Your task to perform on an android device: open chrome privacy settings Image 0: 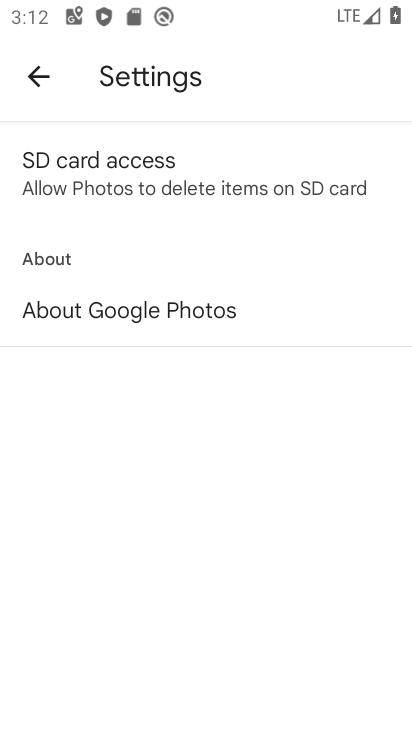
Step 0: press home button
Your task to perform on an android device: open chrome privacy settings Image 1: 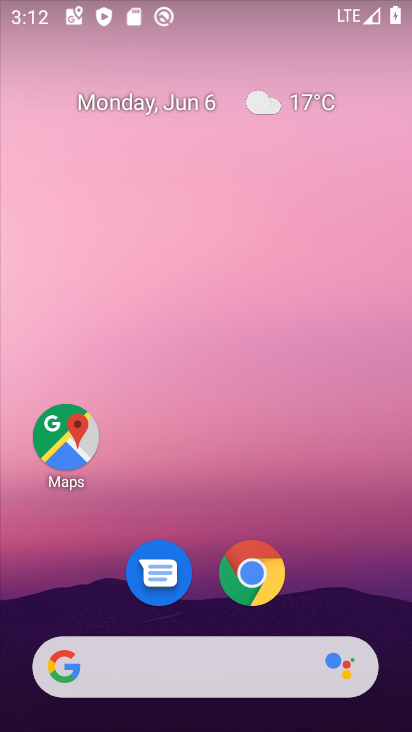
Step 1: drag from (374, 605) to (367, 249)
Your task to perform on an android device: open chrome privacy settings Image 2: 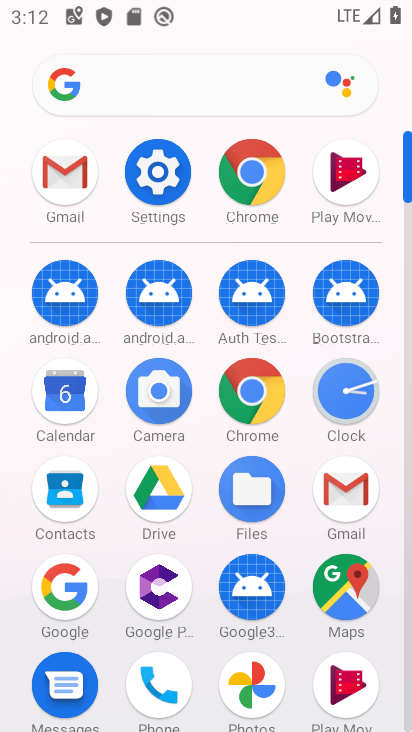
Step 2: click (251, 195)
Your task to perform on an android device: open chrome privacy settings Image 3: 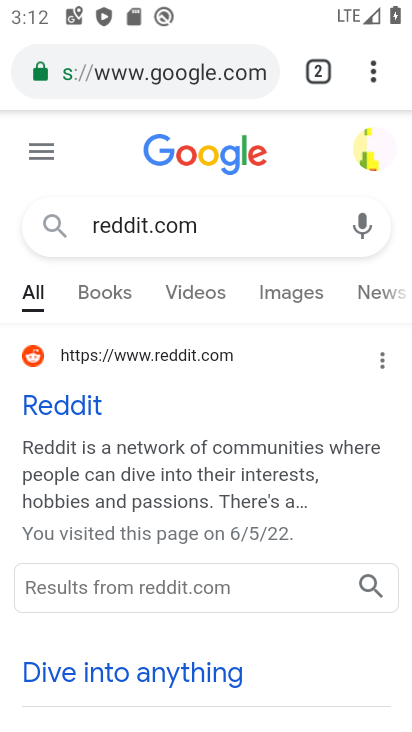
Step 3: click (379, 82)
Your task to perform on an android device: open chrome privacy settings Image 4: 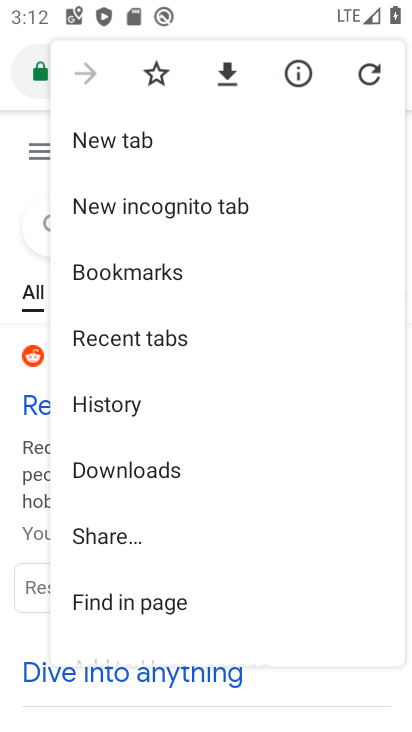
Step 4: drag from (328, 510) to (333, 394)
Your task to perform on an android device: open chrome privacy settings Image 5: 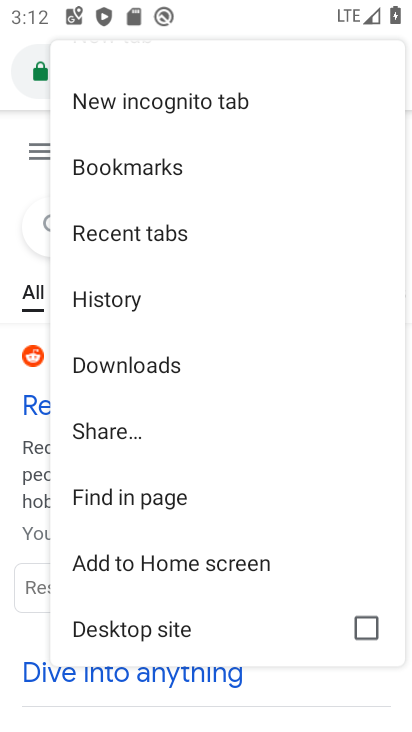
Step 5: drag from (313, 543) to (313, 452)
Your task to perform on an android device: open chrome privacy settings Image 6: 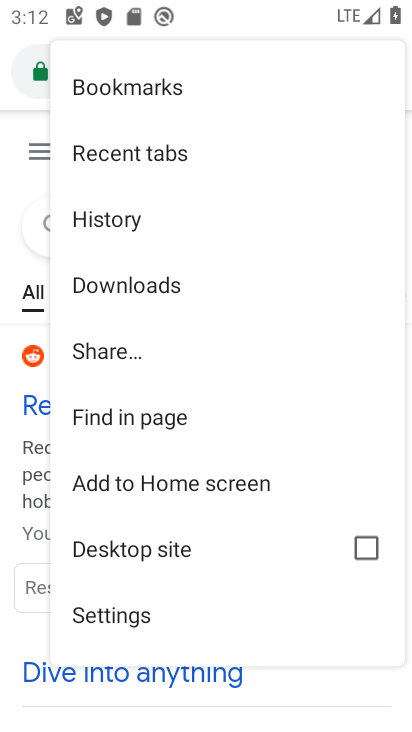
Step 6: drag from (282, 563) to (294, 451)
Your task to perform on an android device: open chrome privacy settings Image 7: 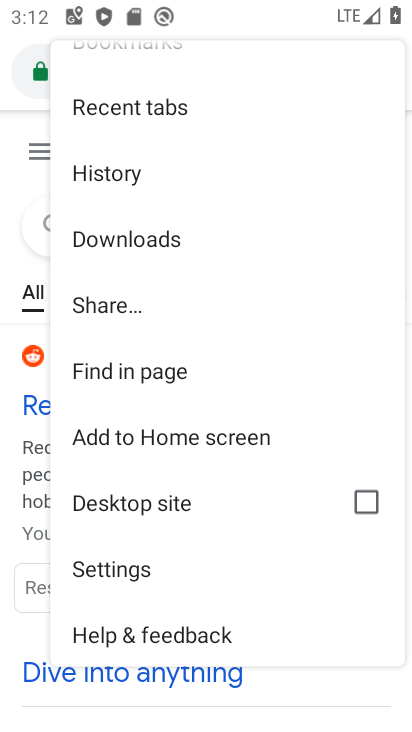
Step 7: click (139, 592)
Your task to perform on an android device: open chrome privacy settings Image 8: 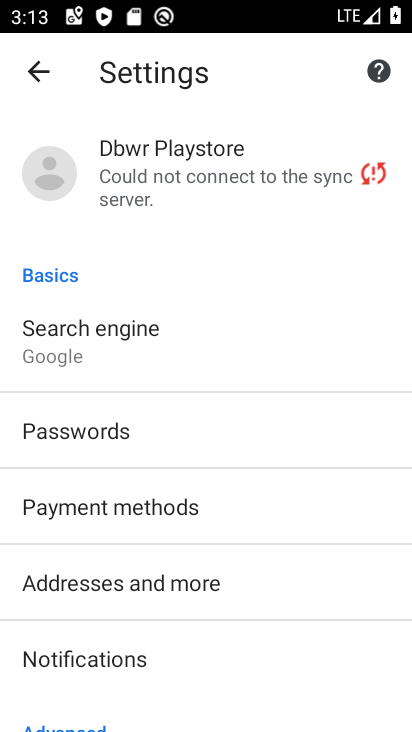
Step 8: drag from (314, 558) to (320, 450)
Your task to perform on an android device: open chrome privacy settings Image 9: 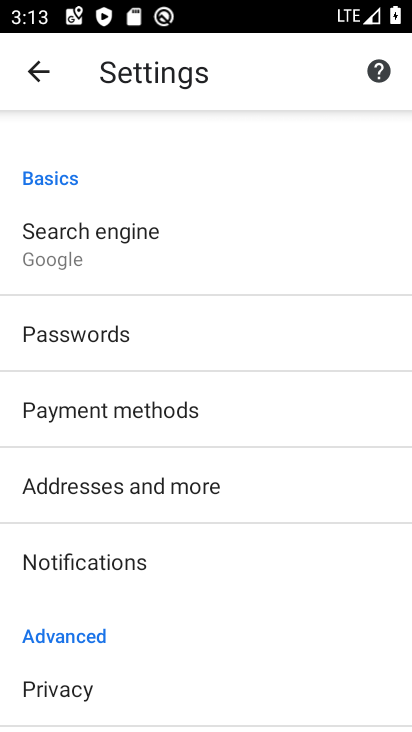
Step 9: drag from (325, 546) to (322, 444)
Your task to perform on an android device: open chrome privacy settings Image 10: 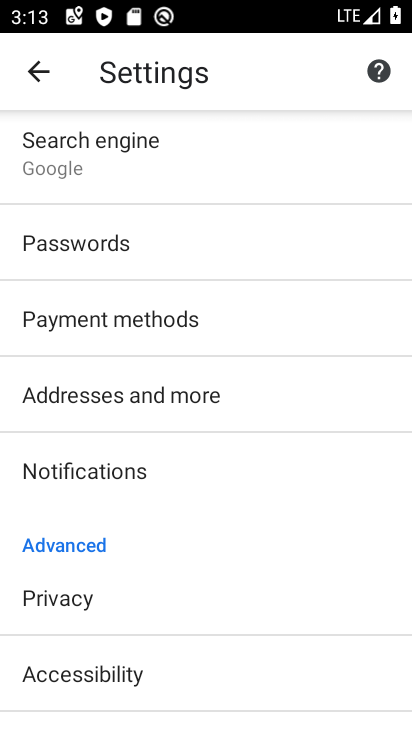
Step 10: drag from (316, 591) to (314, 478)
Your task to perform on an android device: open chrome privacy settings Image 11: 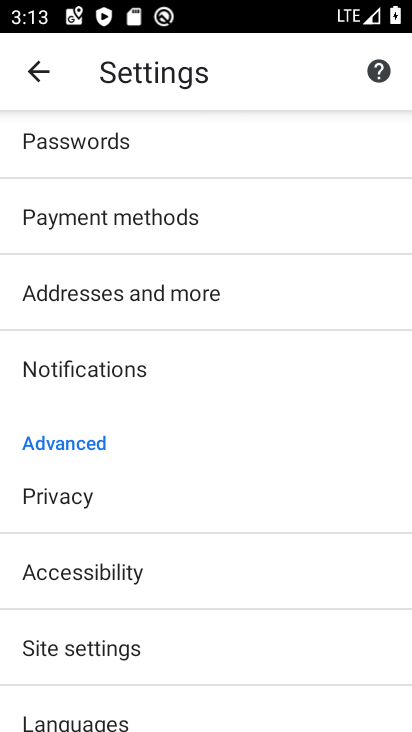
Step 11: drag from (302, 588) to (303, 480)
Your task to perform on an android device: open chrome privacy settings Image 12: 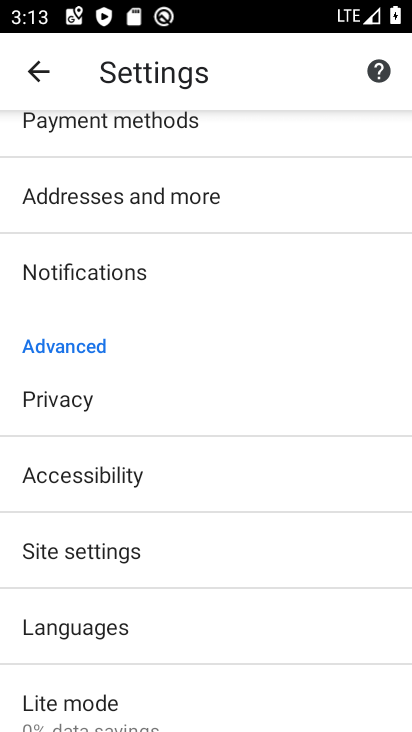
Step 12: drag from (295, 590) to (299, 493)
Your task to perform on an android device: open chrome privacy settings Image 13: 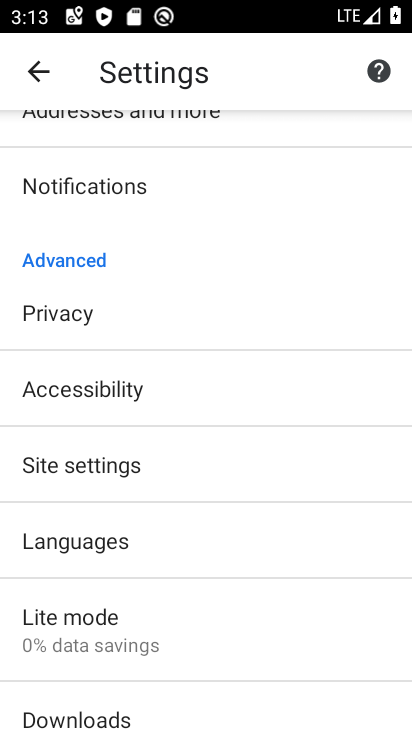
Step 13: drag from (299, 619) to (306, 465)
Your task to perform on an android device: open chrome privacy settings Image 14: 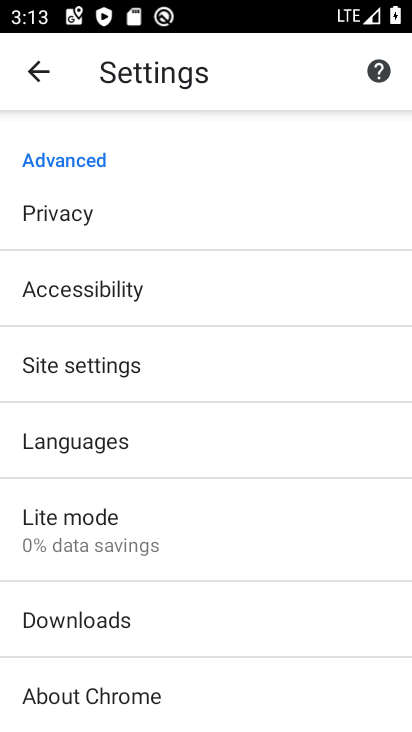
Step 14: click (179, 222)
Your task to perform on an android device: open chrome privacy settings Image 15: 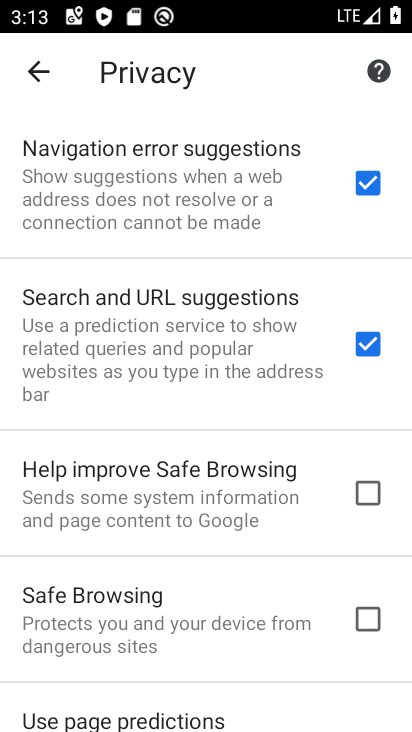
Step 15: task complete